Your task to perform on an android device: change the clock style Image 0: 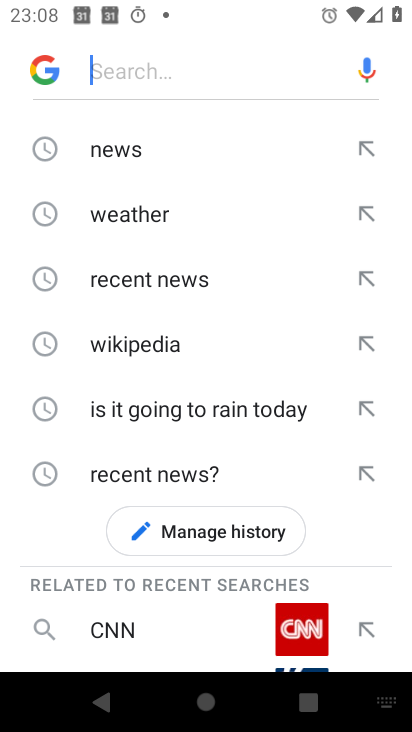
Step 0: press home button
Your task to perform on an android device: change the clock style Image 1: 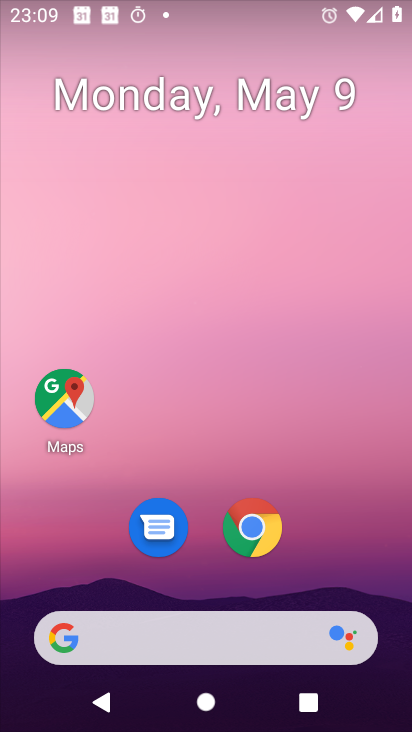
Step 1: drag from (200, 581) to (176, 101)
Your task to perform on an android device: change the clock style Image 2: 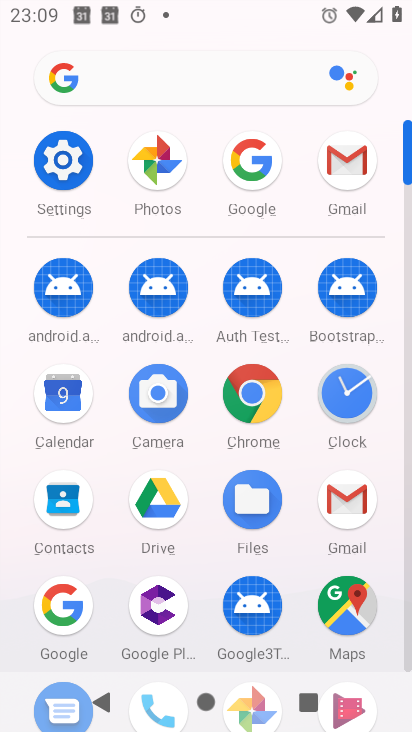
Step 2: click (350, 388)
Your task to perform on an android device: change the clock style Image 3: 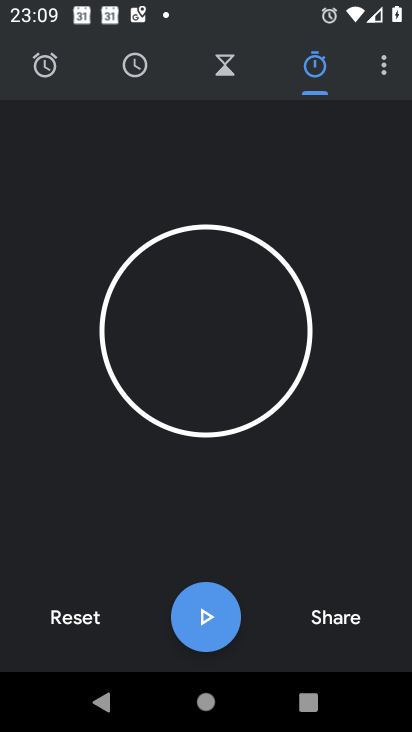
Step 3: click (373, 60)
Your task to perform on an android device: change the clock style Image 4: 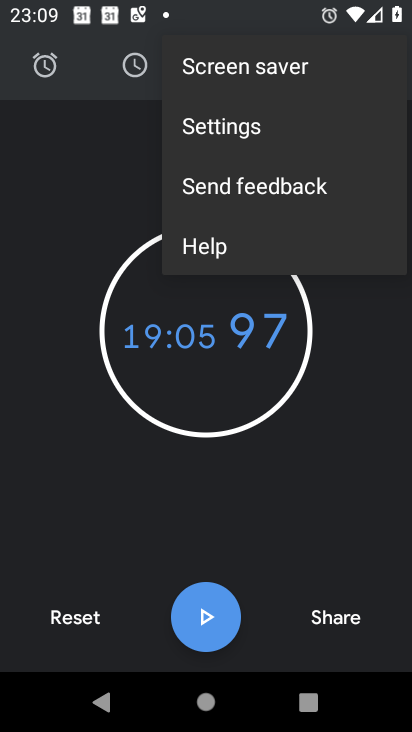
Step 4: click (222, 120)
Your task to perform on an android device: change the clock style Image 5: 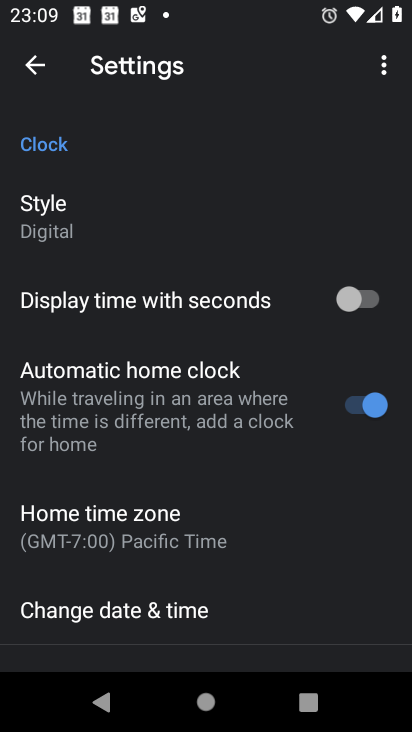
Step 5: click (79, 222)
Your task to perform on an android device: change the clock style Image 6: 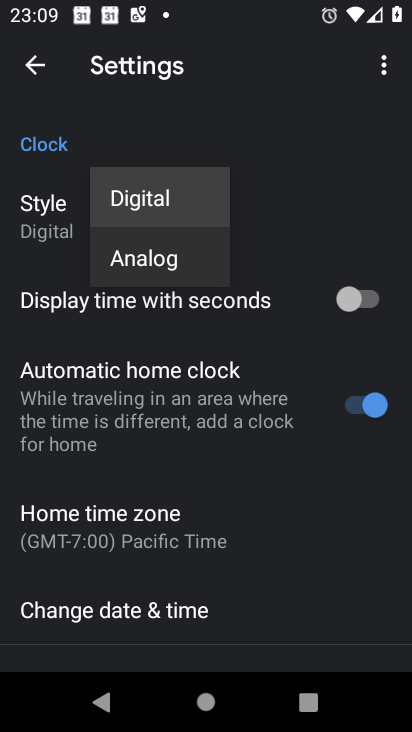
Step 6: click (166, 257)
Your task to perform on an android device: change the clock style Image 7: 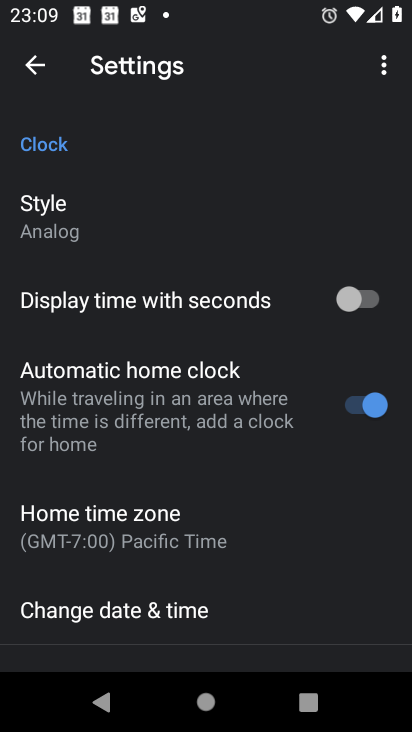
Step 7: task complete